Your task to perform on an android device: Open Android settings Image 0: 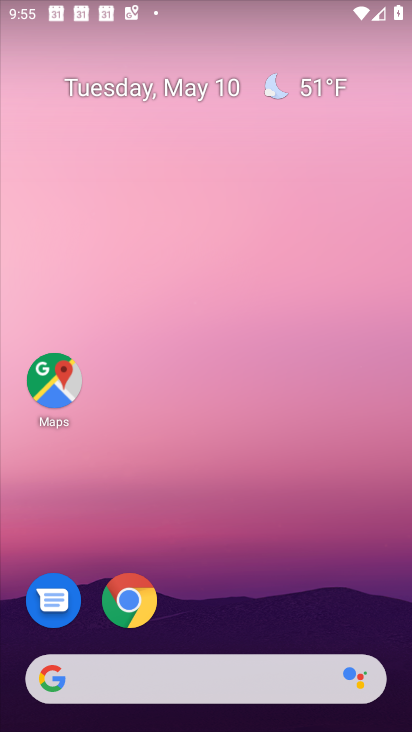
Step 0: drag from (280, 613) to (358, 2)
Your task to perform on an android device: Open Android settings Image 1: 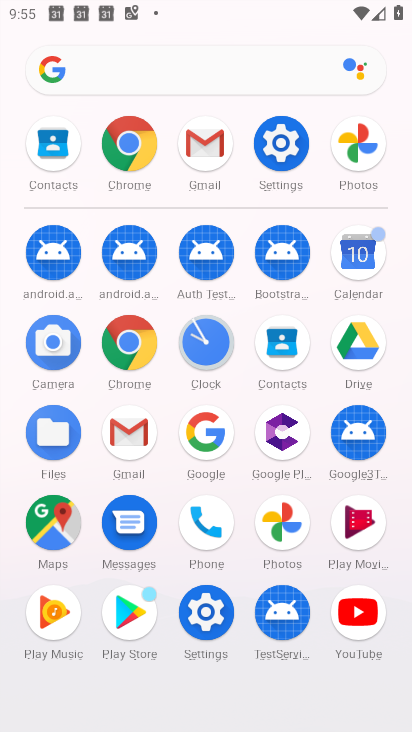
Step 1: click (282, 141)
Your task to perform on an android device: Open Android settings Image 2: 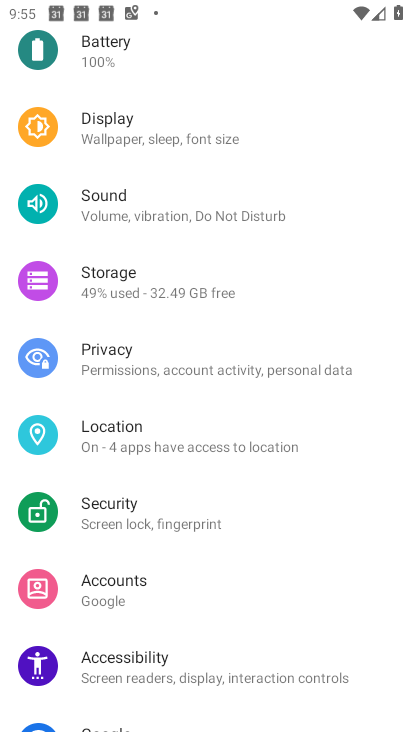
Step 2: task complete